Your task to perform on an android device: Open Google Chrome and click the shortcut for Amazon.com Image 0: 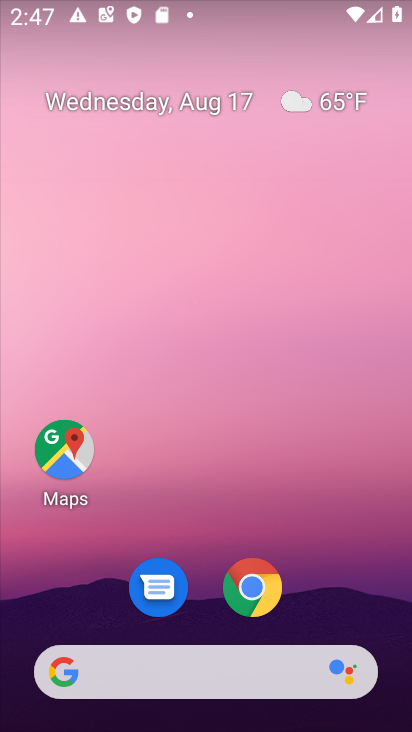
Step 0: press home button
Your task to perform on an android device: Open Google Chrome and click the shortcut for Amazon.com Image 1: 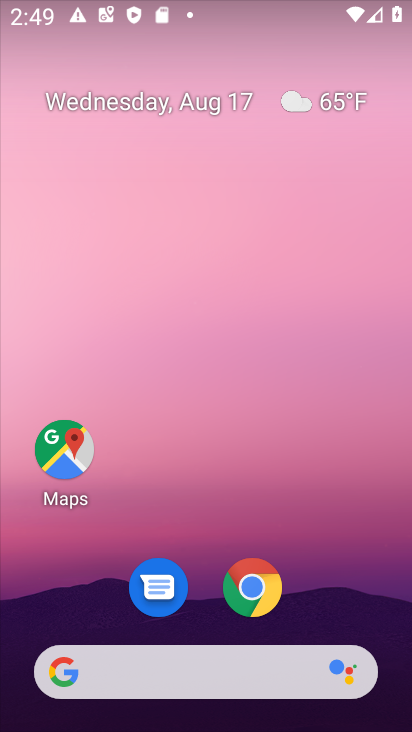
Step 1: click (255, 591)
Your task to perform on an android device: Open Google Chrome and click the shortcut for Amazon.com Image 2: 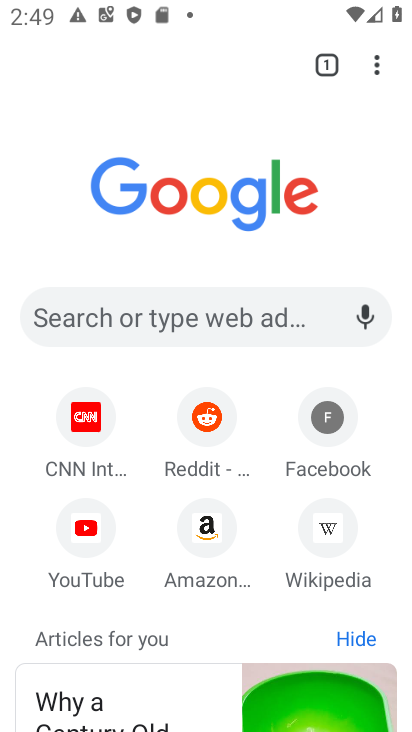
Step 2: click (198, 519)
Your task to perform on an android device: Open Google Chrome and click the shortcut for Amazon.com Image 3: 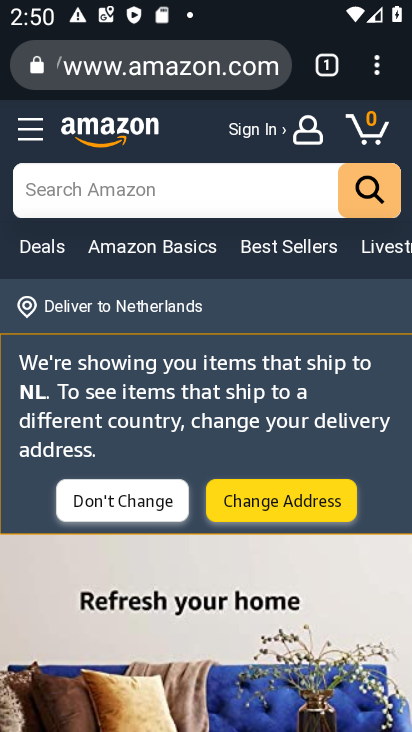
Step 3: task complete